Your task to perform on an android device: Open calendar and show me the second week of next month Image 0: 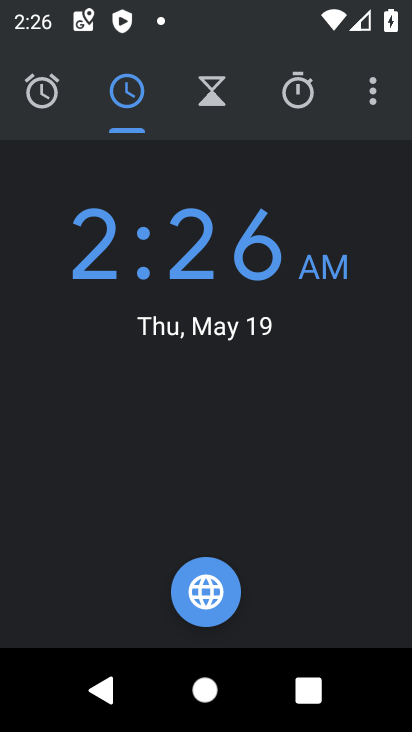
Step 0: press home button
Your task to perform on an android device: Open calendar and show me the second week of next month Image 1: 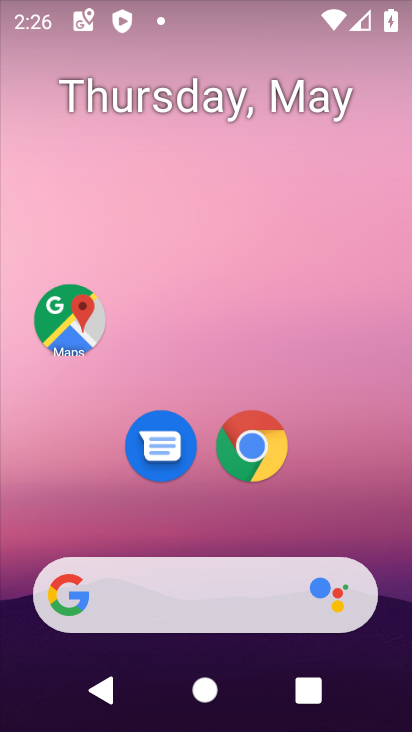
Step 1: drag from (210, 538) to (133, 185)
Your task to perform on an android device: Open calendar and show me the second week of next month Image 2: 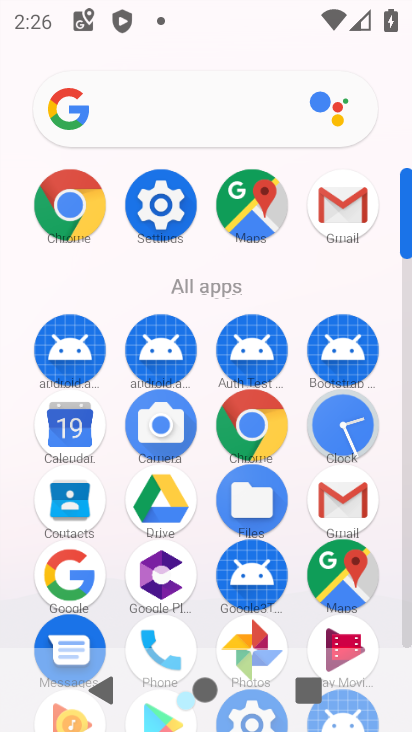
Step 2: click (62, 426)
Your task to perform on an android device: Open calendar and show me the second week of next month Image 3: 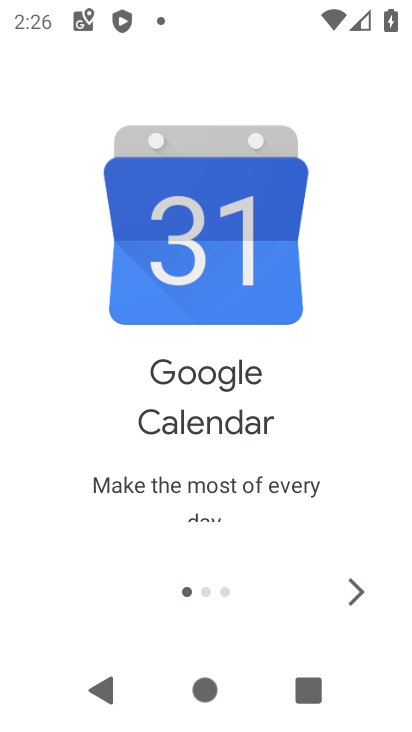
Step 3: click (345, 585)
Your task to perform on an android device: Open calendar and show me the second week of next month Image 4: 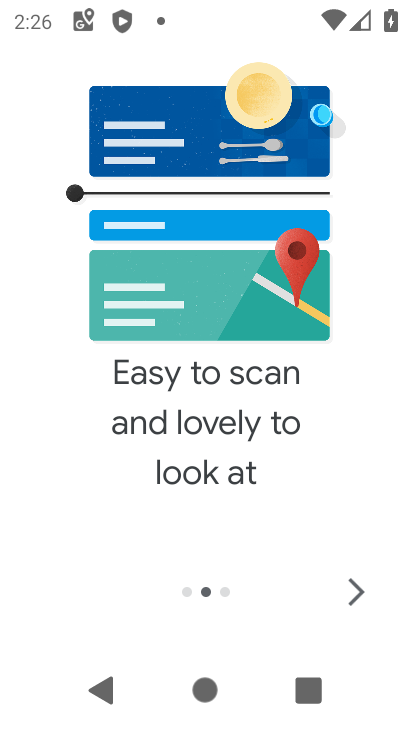
Step 4: click (347, 585)
Your task to perform on an android device: Open calendar and show me the second week of next month Image 5: 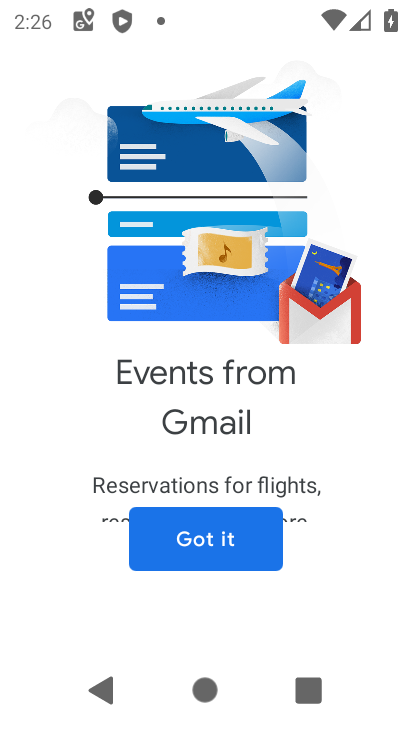
Step 5: click (193, 531)
Your task to perform on an android device: Open calendar and show me the second week of next month Image 6: 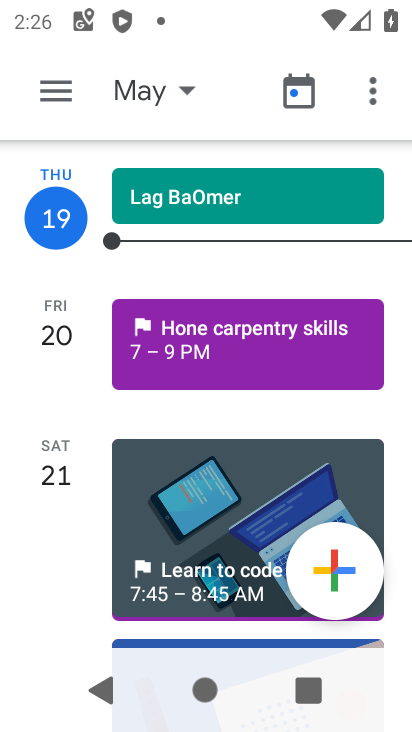
Step 6: click (131, 77)
Your task to perform on an android device: Open calendar and show me the second week of next month Image 7: 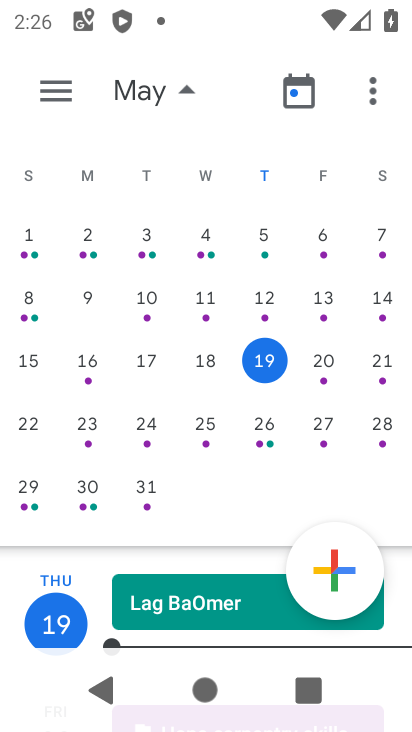
Step 7: drag from (374, 285) to (25, 299)
Your task to perform on an android device: Open calendar and show me the second week of next month Image 8: 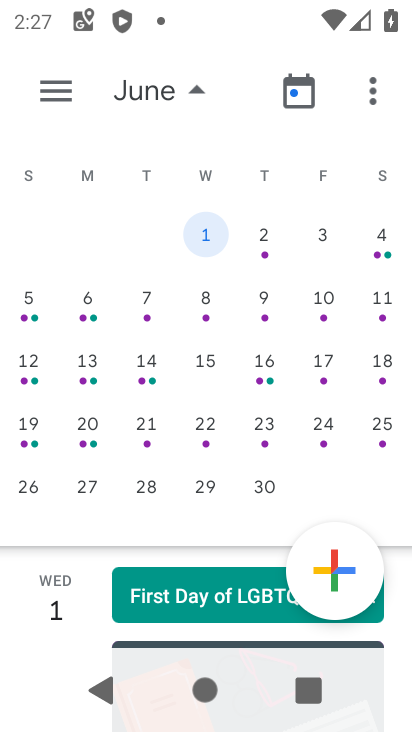
Step 8: click (35, 314)
Your task to perform on an android device: Open calendar and show me the second week of next month Image 9: 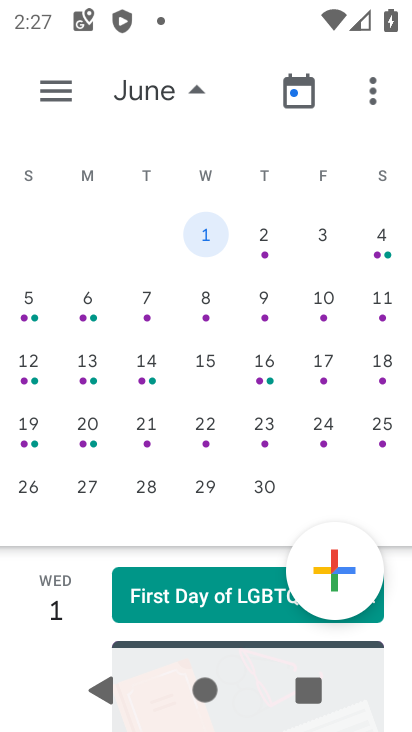
Step 9: click (44, 318)
Your task to perform on an android device: Open calendar and show me the second week of next month Image 10: 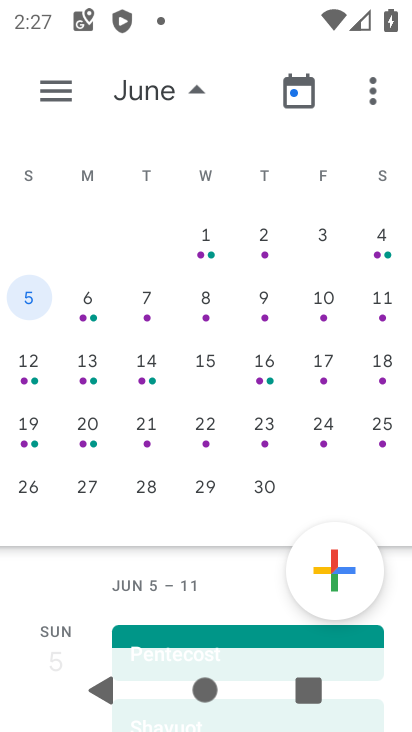
Step 10: task complete